Your task to perform on an android device: open app "Messages" Image 0: 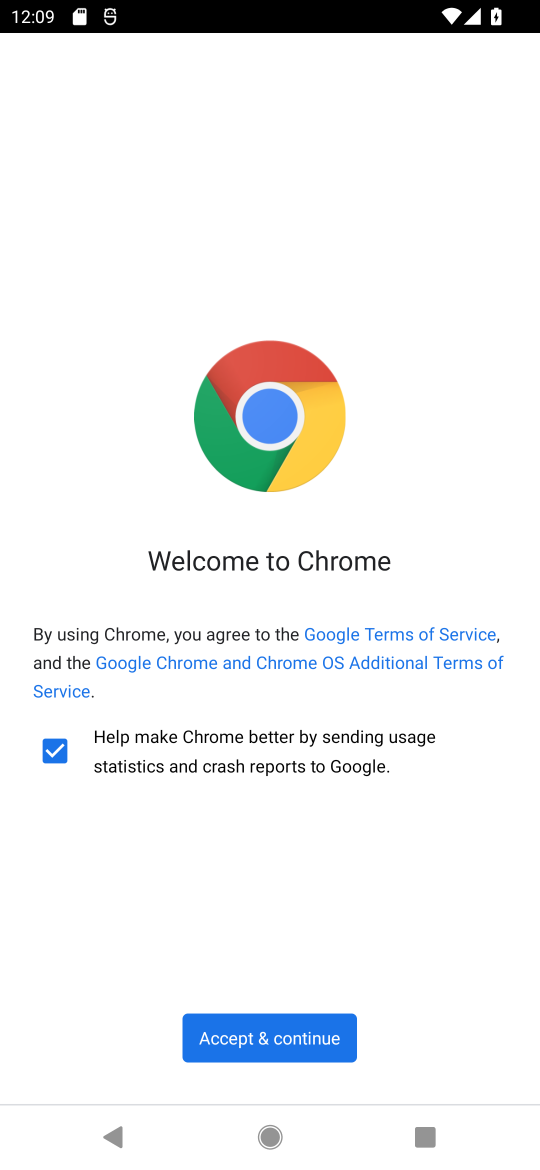
Step 0: press home button
Your task to perform on an android device: open app "Messages" Image 1: 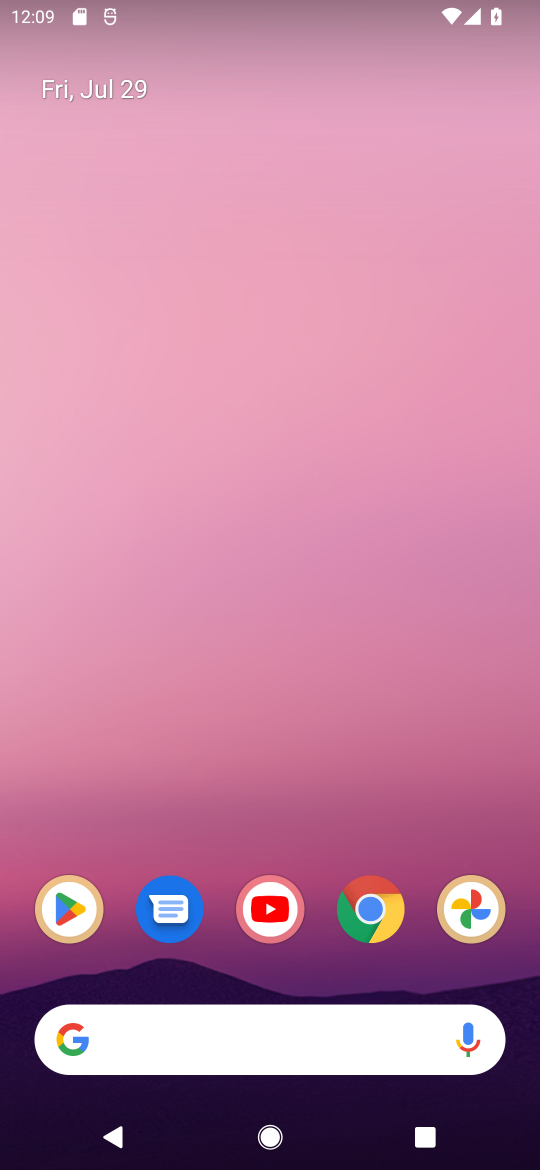
Step 1: click (86, 941)
Your task to perform on an android device: open app "Messages" Image 2: 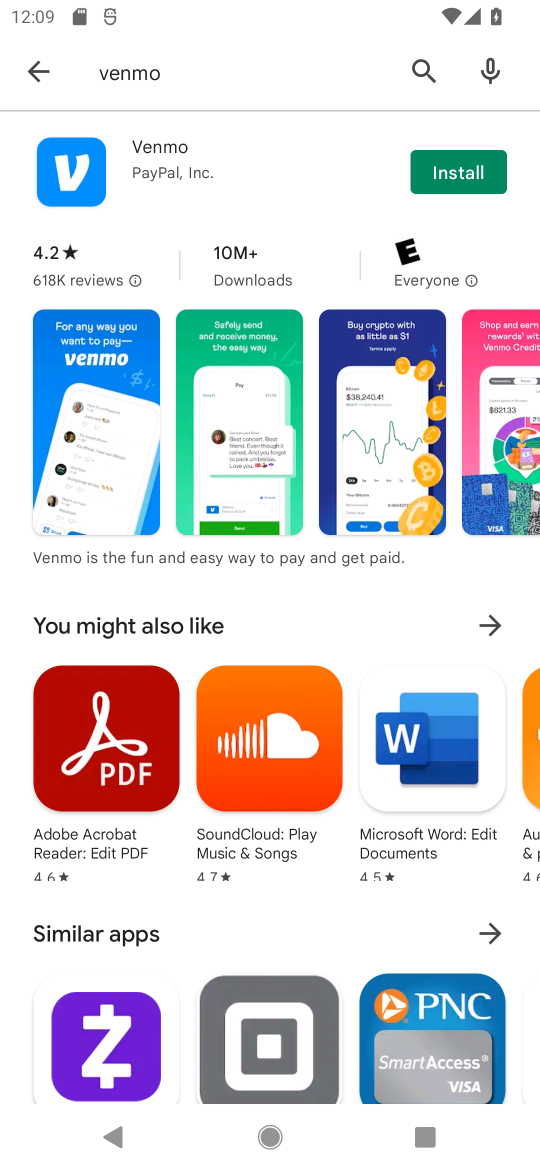
Step 2: click (419, 71)
Your task to perform on an android device: open app "Messages" Image 3: 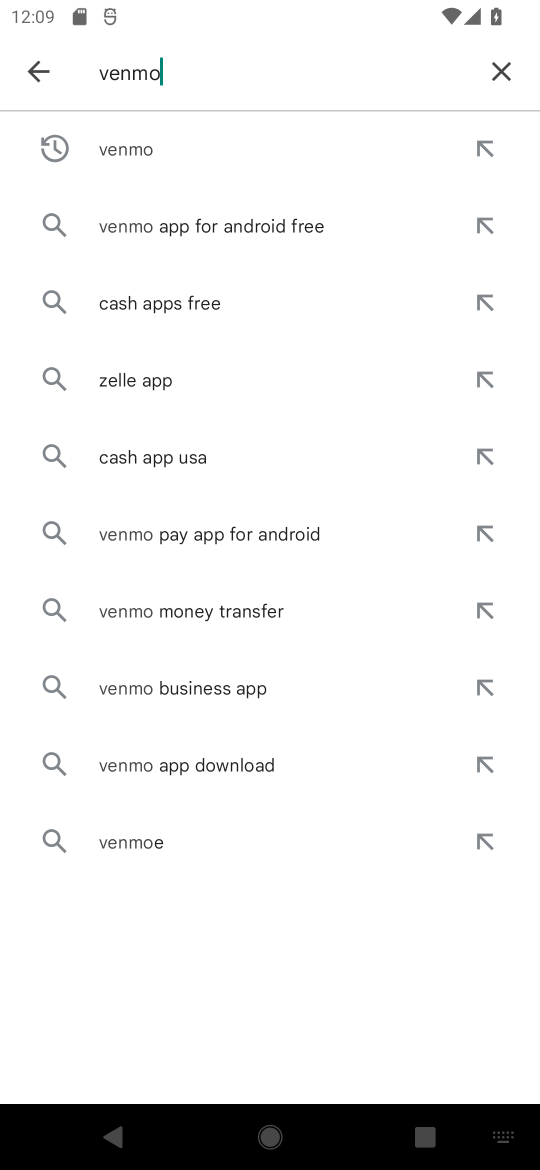
Step 3: click (495, 65)
Your task to perform on an android device: open app "Messages" Image 4: 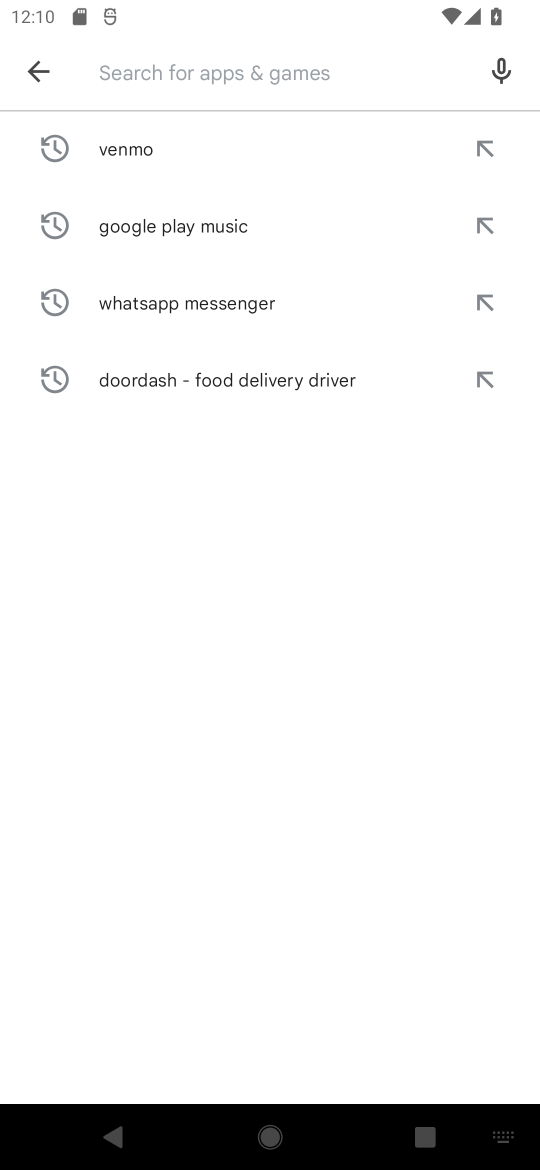
Step 4: type "Nessenges"
Your task to perform on an android device: open app "Messages" Image 5: 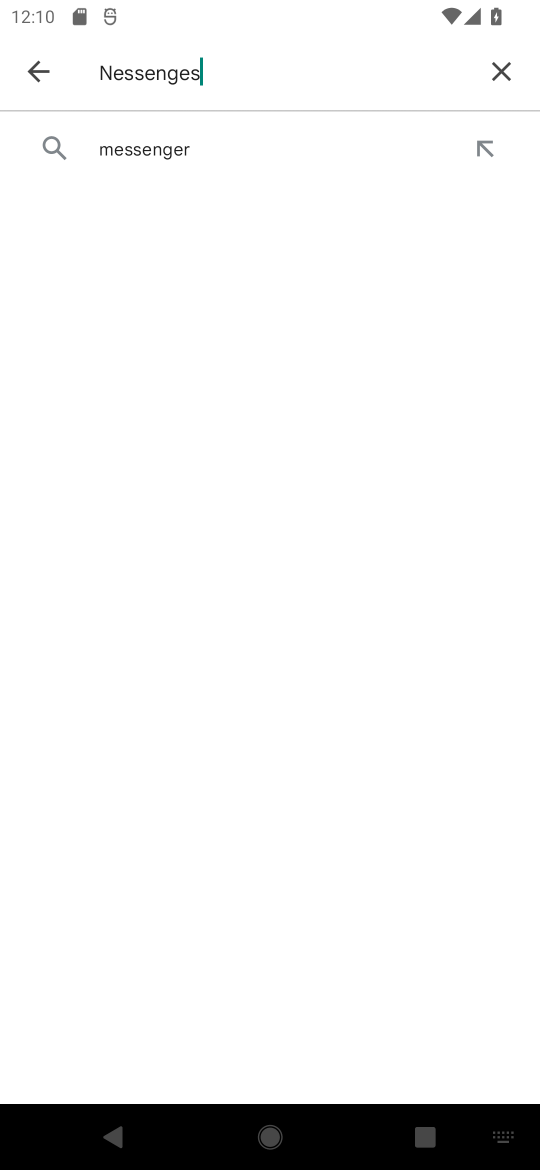
Step 5: click (149, 156)
Your task to perform on an android device: open app "Messages" Image 6: 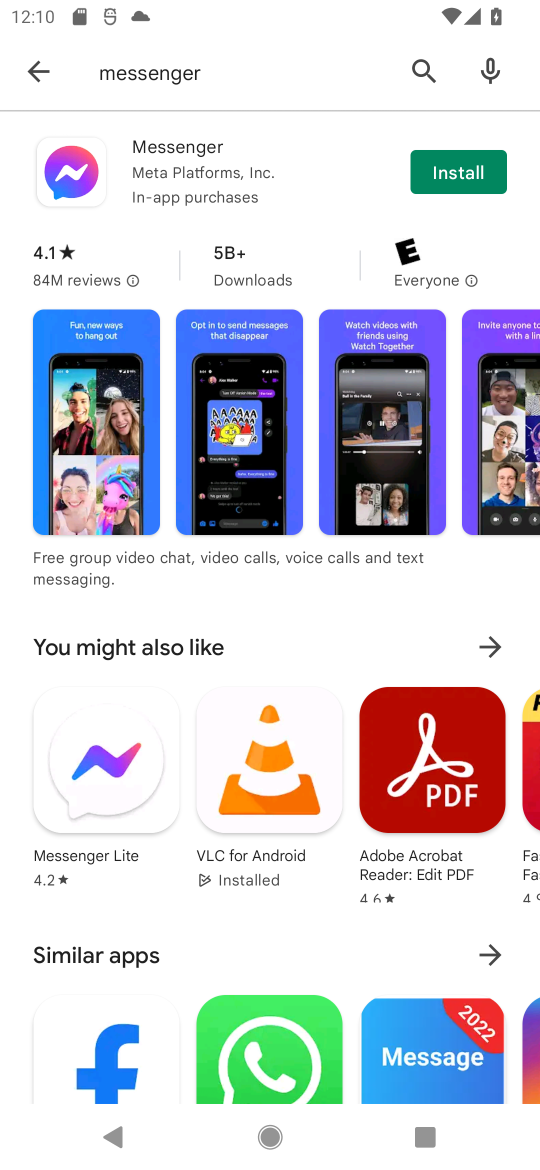
Step 6: click (406, 72)
Your task to perform on an android device: open app "Messages" Image 7: 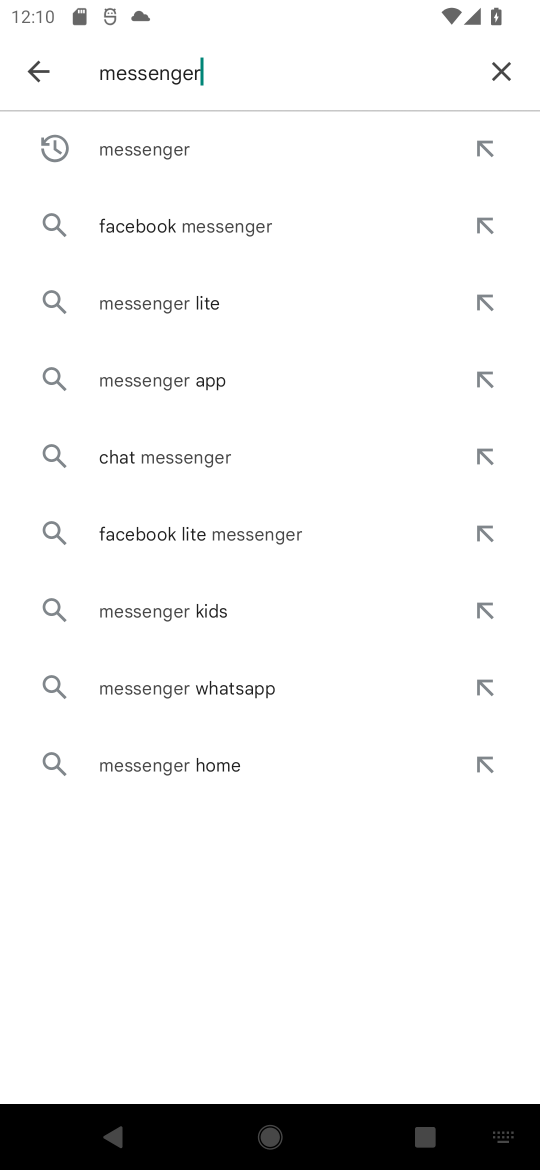
Step 7: click (496, 64)
Your task to perform on an android device: open app "Messages" Image 8: 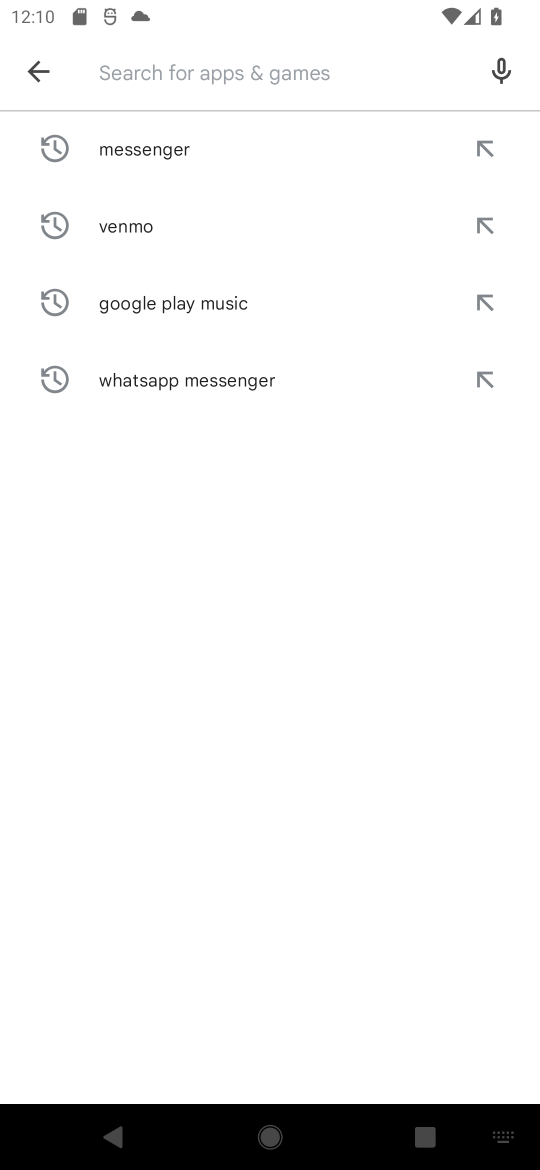
Step 8: type "messages"
Your task to perform on an android device: open app "Messages" Image 9: 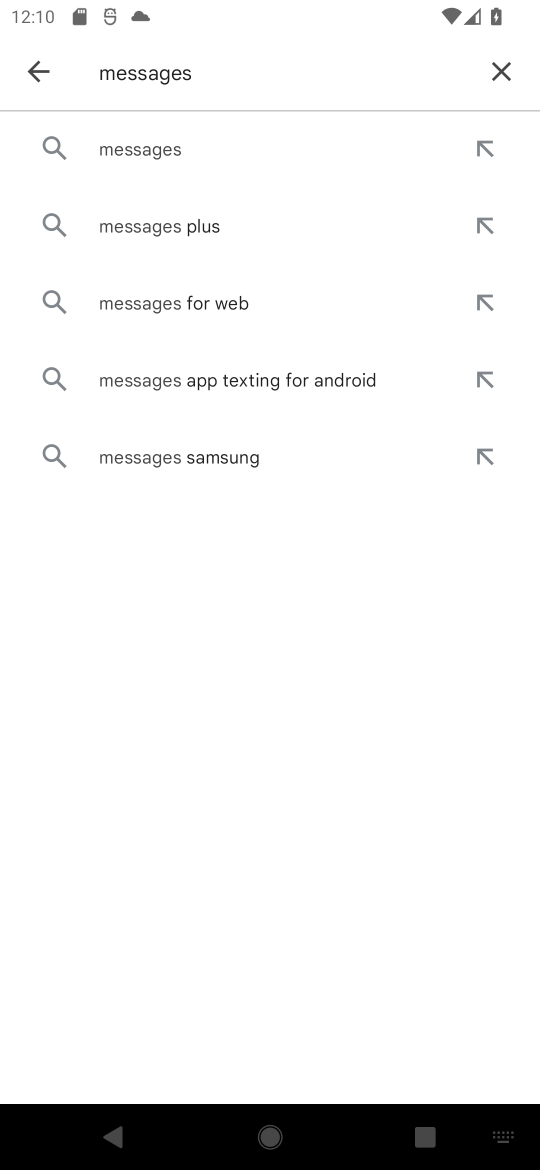
Step 9: click (163, 143)
Your task to perform on an android device: open app "Messages" Image 10: 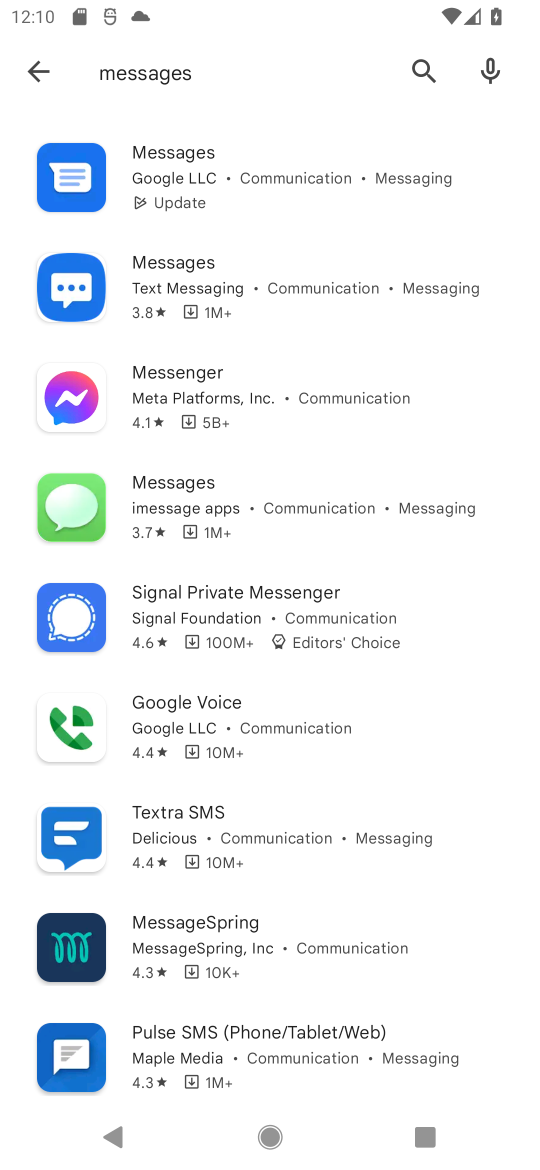
Step 10: click (268, 203)
Your task to perform on an android device: open app "Messages" Image 11: 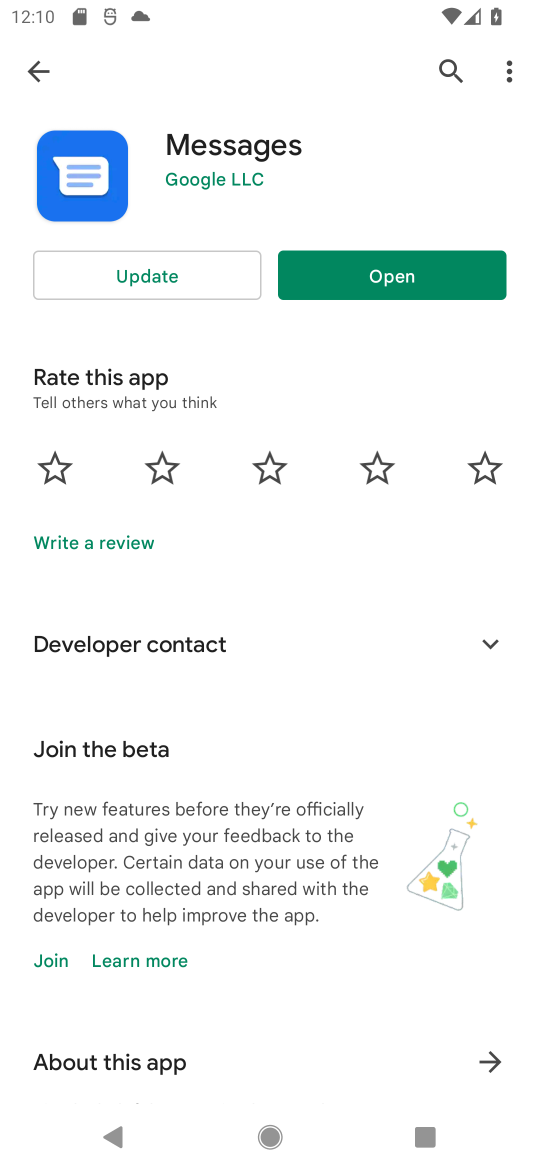
Step 11: click (394, 288)
Your task to perform on an android device: open app "Messages" Image 12: 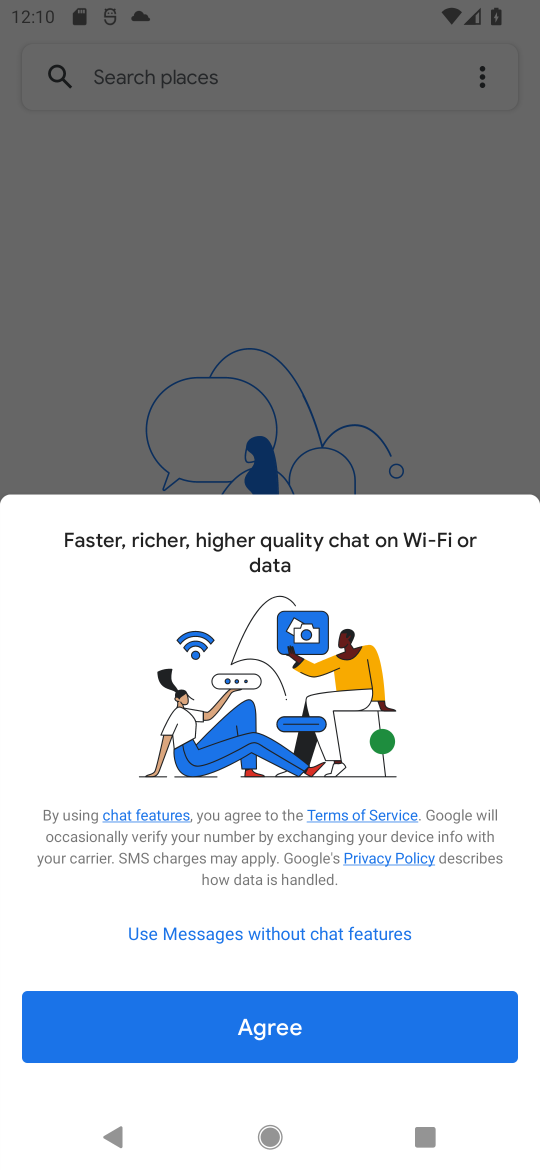
Step 12: task complete